Your task to perform on an android device: read, delete, or share a saved page in the chrome app Image 0: 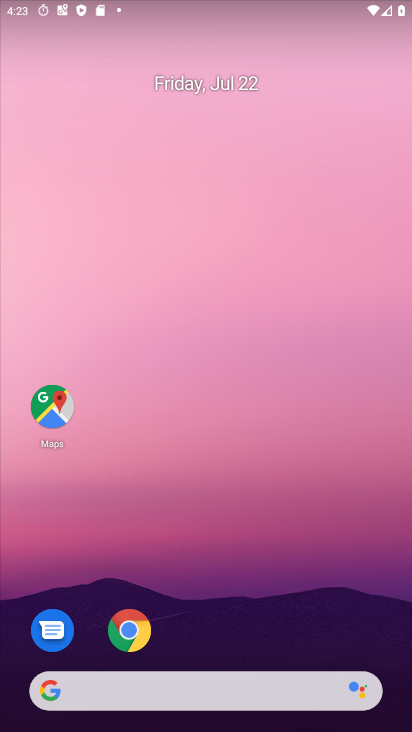
Step 0: drag from (300, 646) to (336, 467)
Your task to perform on an android device: read, delete, or share a saved page in the chrome app Image 1: 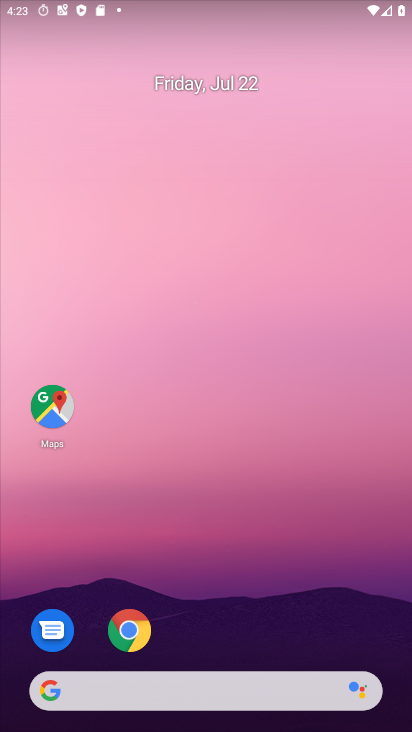
Step 1: click (129, 359)
Your task to perform on an android device: read, delete, or share a saved page in the chrome app Image 2: 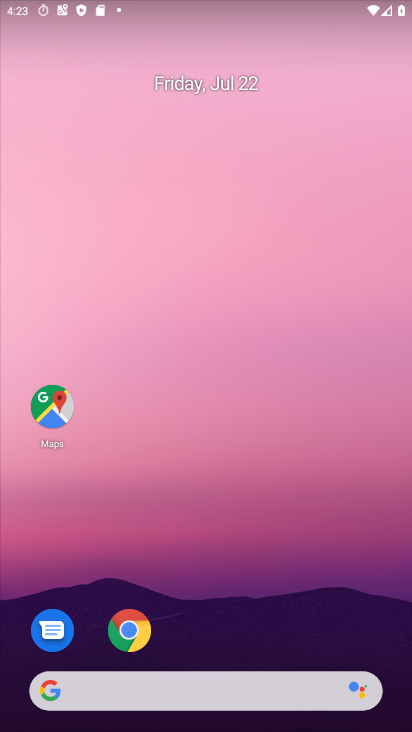
Step 2: drag from (309, 705) to (292, 73)
Your task to perform on an android device: read, delete, or share a saved page in the chrome app Image 3: 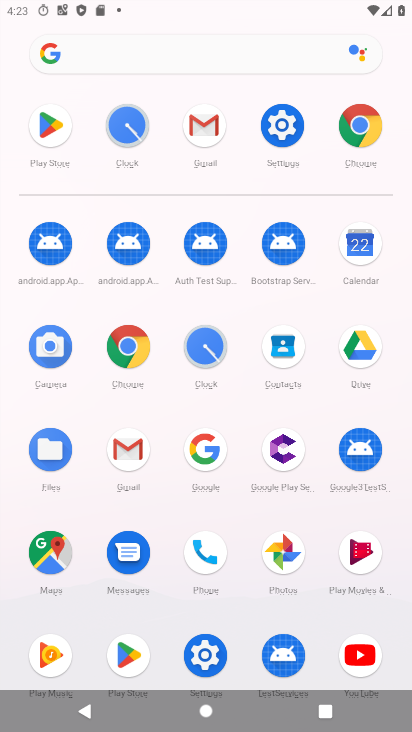
Step 3: click (126, 352)
Your task to perform on an android device: read, delete, or share a saved page in the chrome app Image 4: 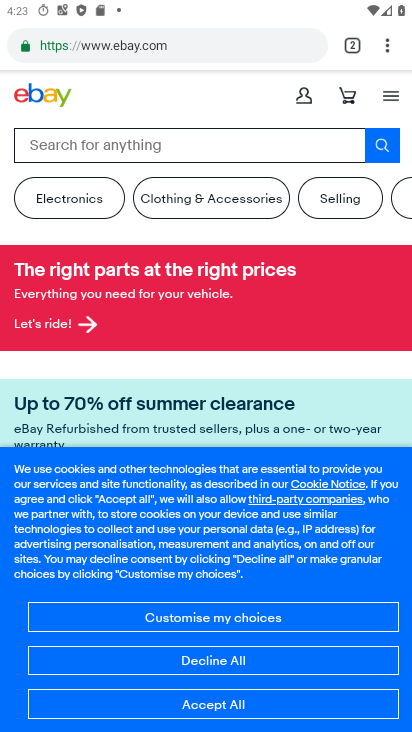
Step 4: task complete